Your task to perform on an android device: change alarm snooze length Image 0: 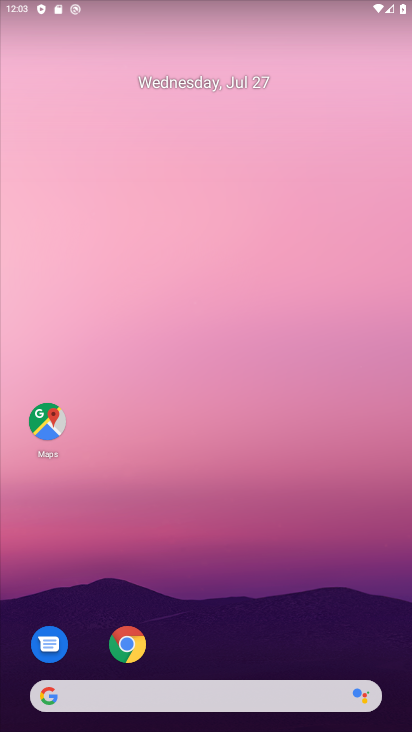
Step 0: press home button
Your task to perform on an android device: change alarm snooze length Image 1: 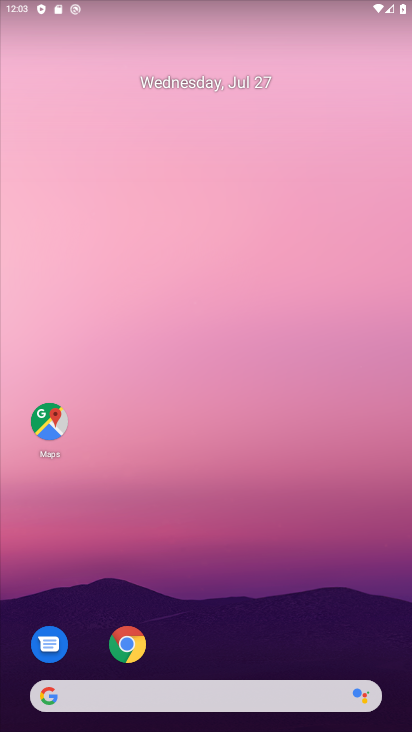
Step 1: drag from (203, 643) to (222, 305)
Your task to perform on an android device: change alarm snooze length Image 2: 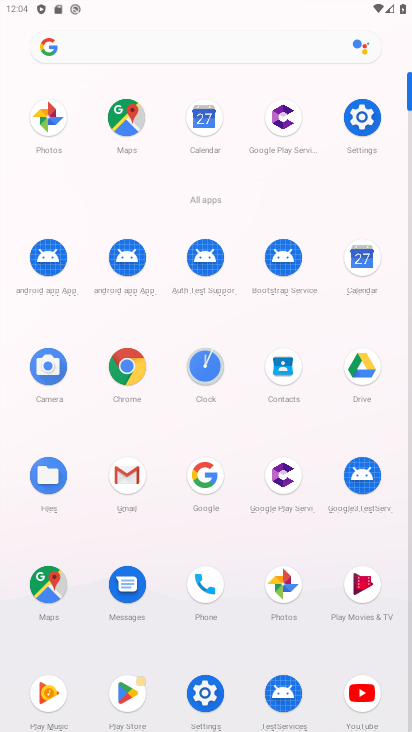
Step 2: click (209, 372)
Your task to perform on an android device: change alarm snooze length Image 3: 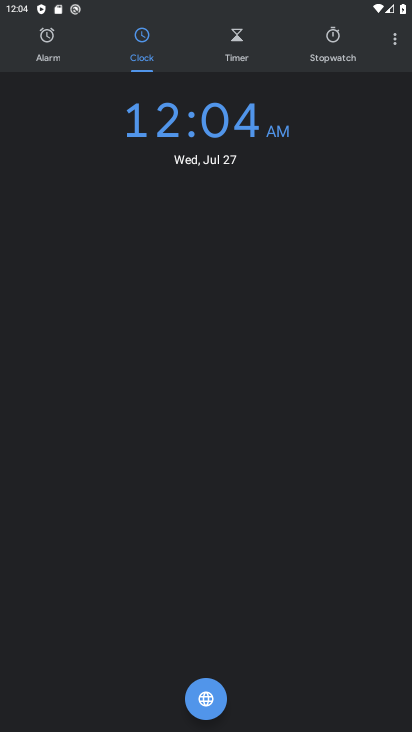
Step 3: click (395, 37)
Your task to perform on an android device: change alarm snooze length Image 4: 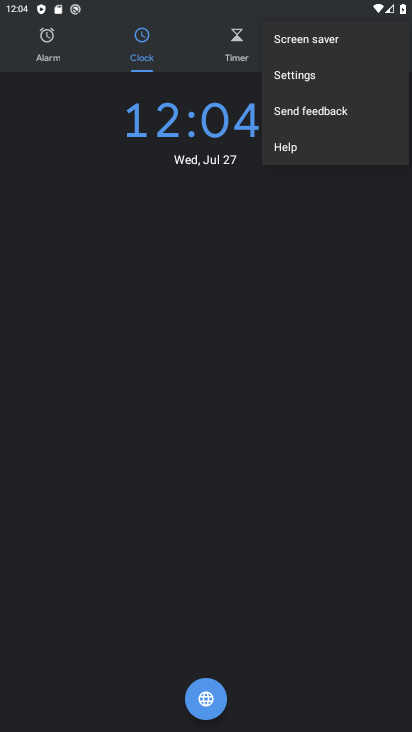
Step 4: click (286, 82)
Your task to perform on an android device: change alarm snooze length Image 5: 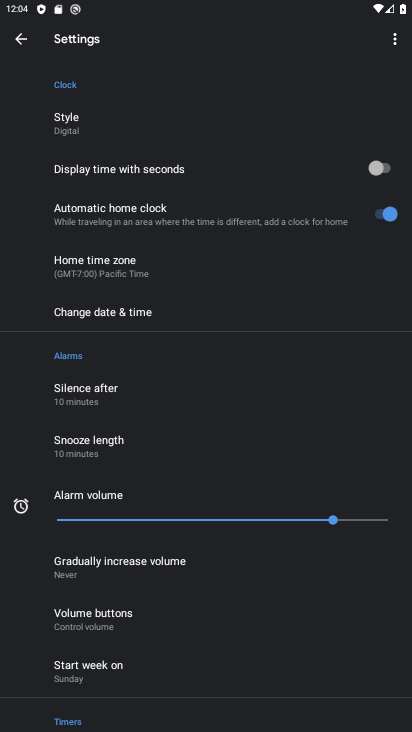
Step 5: drag from (109, 667) to (132, 312)
Your task to perform on an android device: change alarm snooze length Image 6: 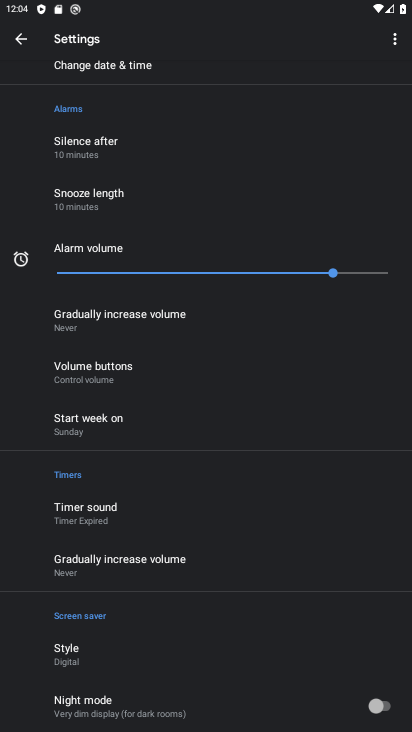
Step 6: drag from (133, 572) to (154, 286)
Your task to perform on an android device: change alarm snooze length Image 7: 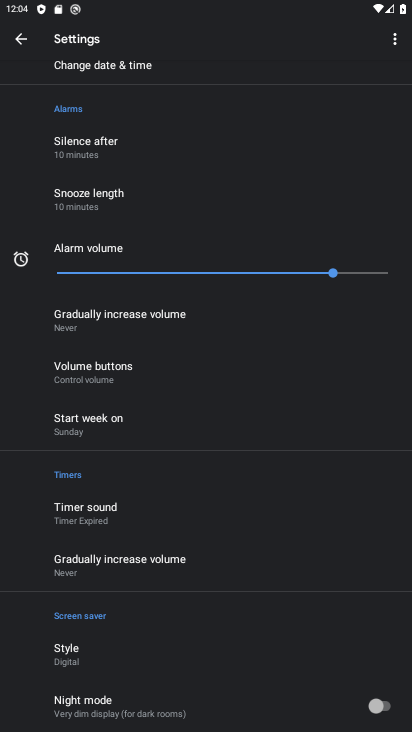
Step 7: click (76, 207)
Your task to perform on an android device: change alarm snooze length Image 8: 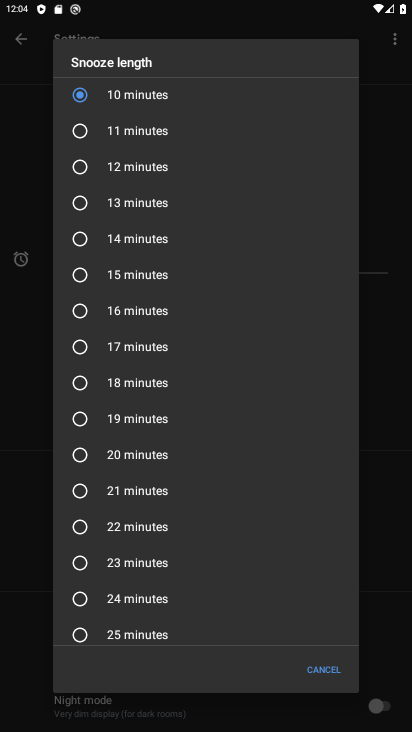
Step 8: click (128, 590)
Your task to perform on an android device: change alarm snooze length Image 9: 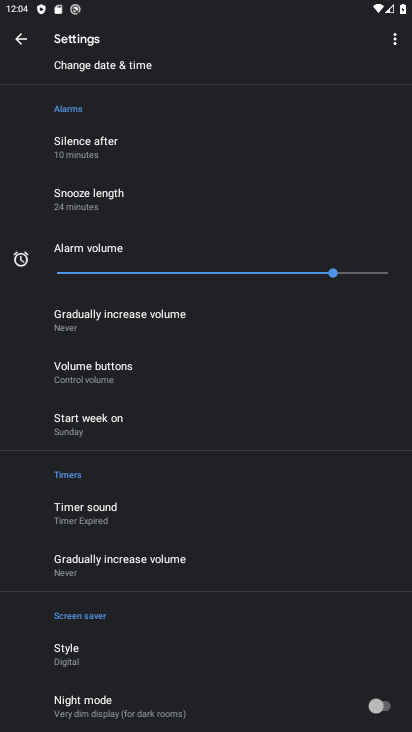
Step 9: task complete